Your task to perform on an android device: change the clock display to analog Image 0: 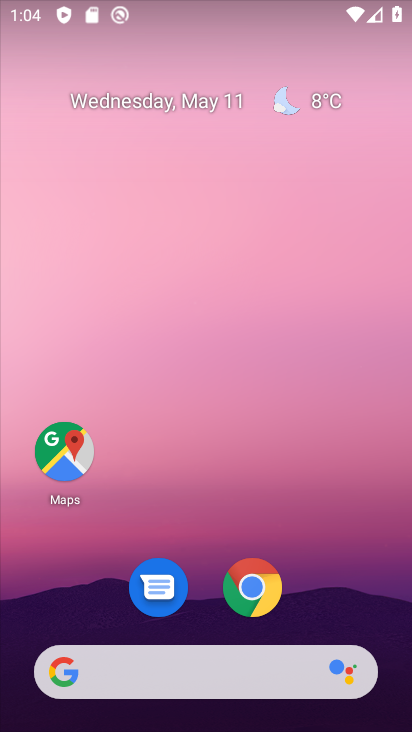
Step 0: press home button
Your task to perform on an android device: change the clock display to analog Image 1: 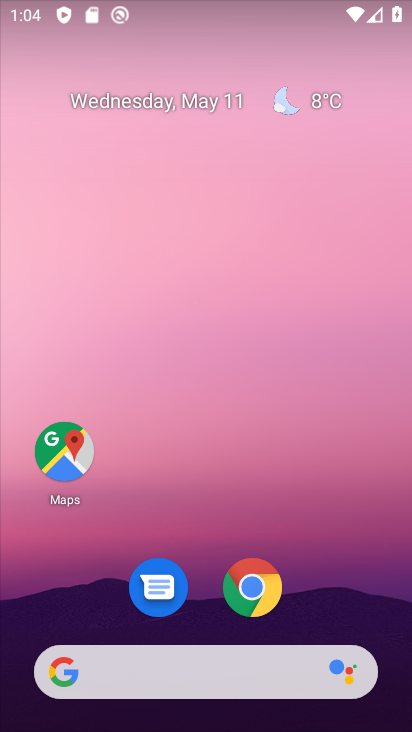
Step 1: drag from (338, 619) to (327, 13)
Your task to perform on an android device: change the clock display to analog Image 2: 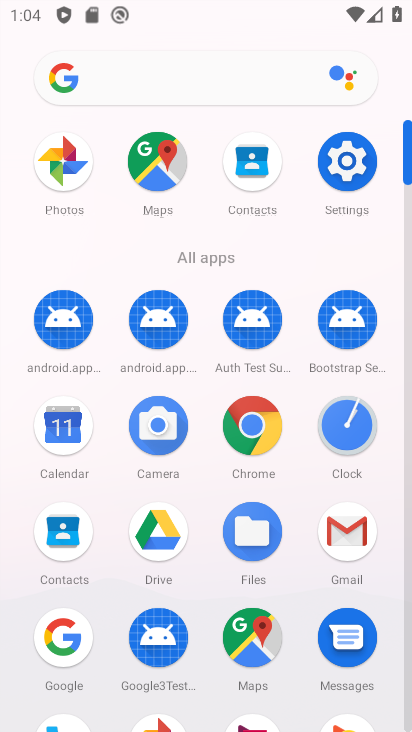
Step 2: click (358, 409)
Your task to perform on an android device: change the clock display to analog Image 3: 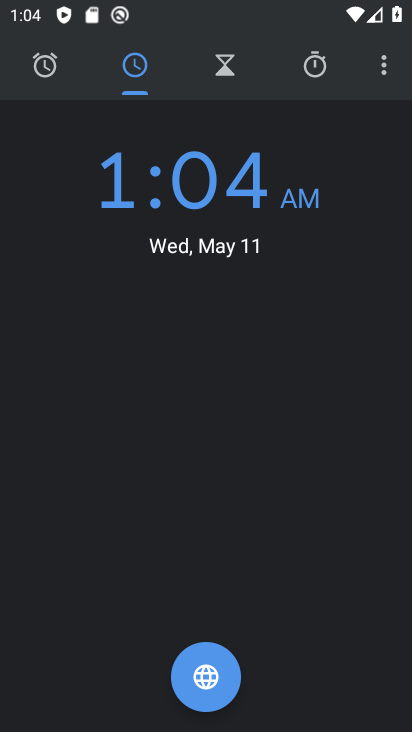
Step 3: click (392, 57)
Your task to perform on an android device: change the clock display to analog Image 4: 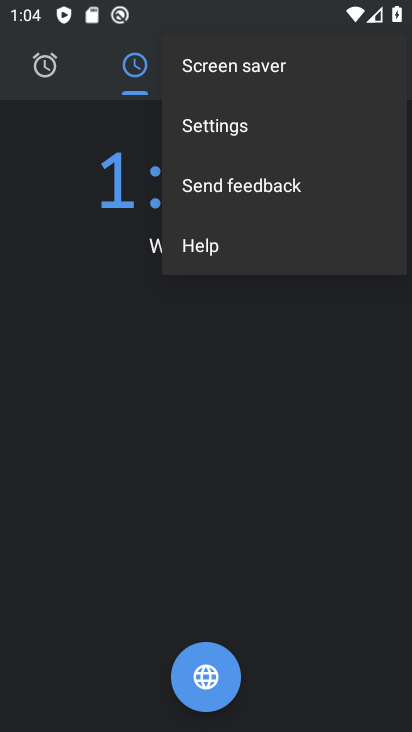
Step 4: click (255, 132)
Your task to perform on an android device: change the clock display to analog Image 5: 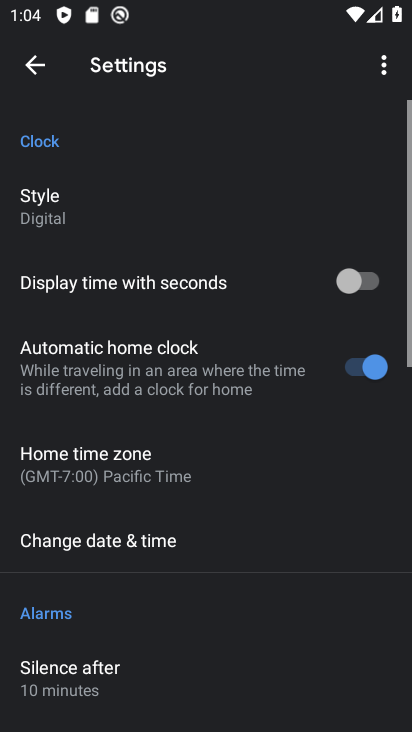
Step 5: click (114, 227)
Your task to perform on an android device: change the clock display to analog Image 6: 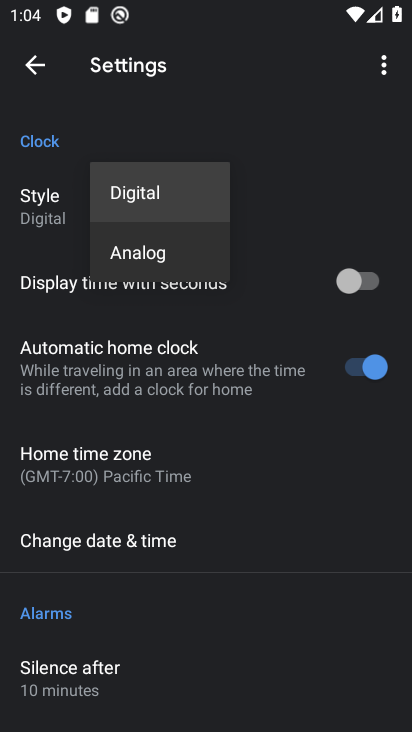
Step 6: click (129, 265)
Your task to perform on an android device: change the clock display to analog Image 7: 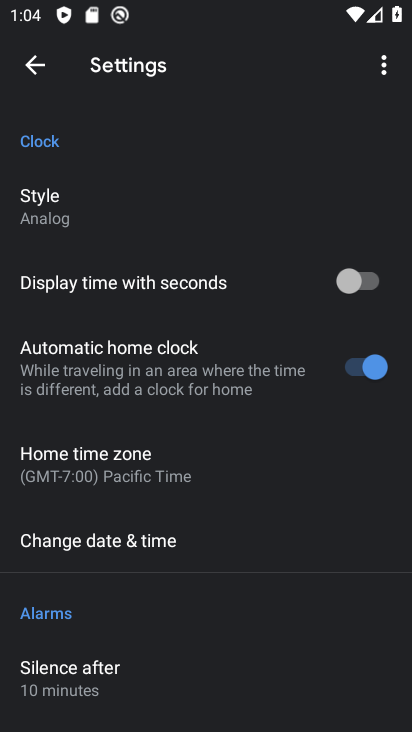
Step 7: task complete